Your task to perform on an android device: find photos in the google photos app Image 0: 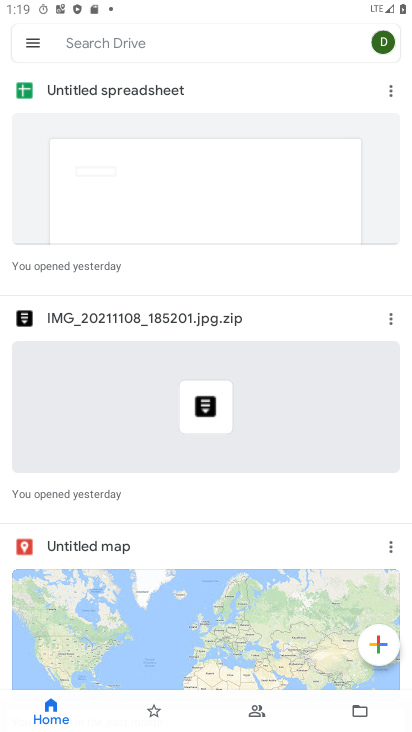
Step 0: press home button
Your task to perform on an android device: find photos in the google photos app Image 1: 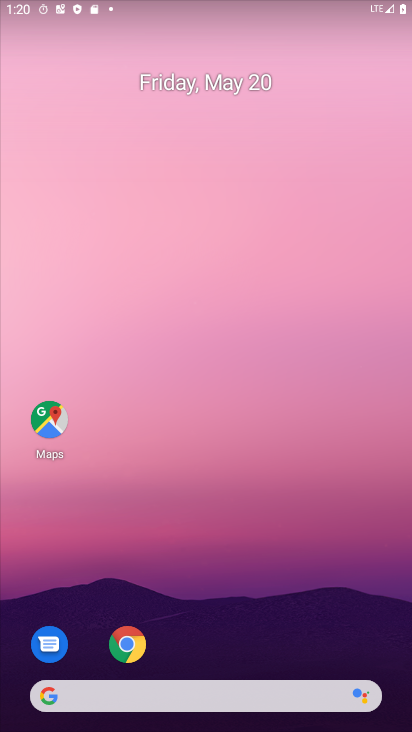
Step 1: drag from (313, 541) to (376, 101)
Your task to perform on an android device: find photos in the google photos app Image 2: 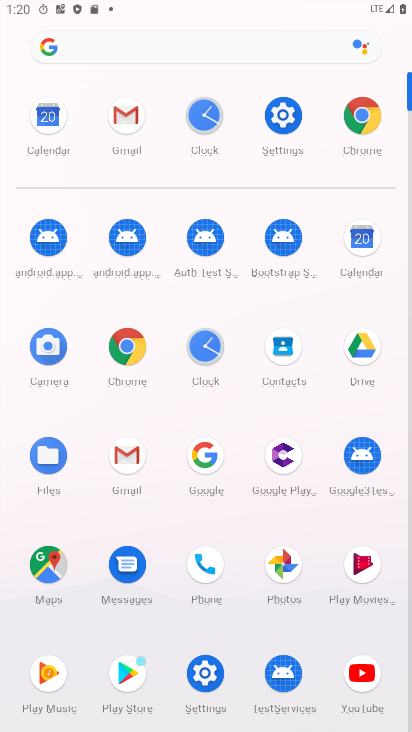
Step 2: click (267, 558)
Your task to perform on an android device: find photos in the google photos app Image 3: 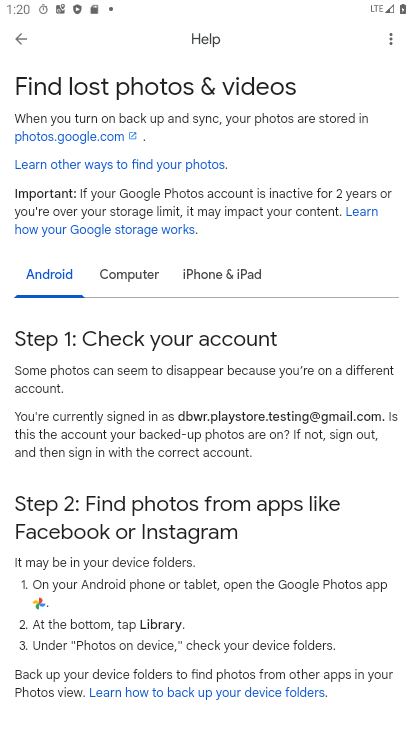
Step 3: click (18, 43)
Your task to perform on an android device: find photos in the google photos app Image 4: 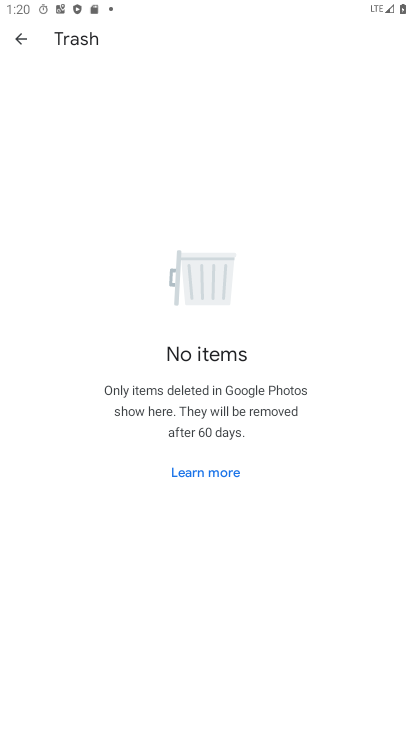
Step 4: click (10, 38)
Your task to perform on an android device: find photos in the google photos app Image 5: 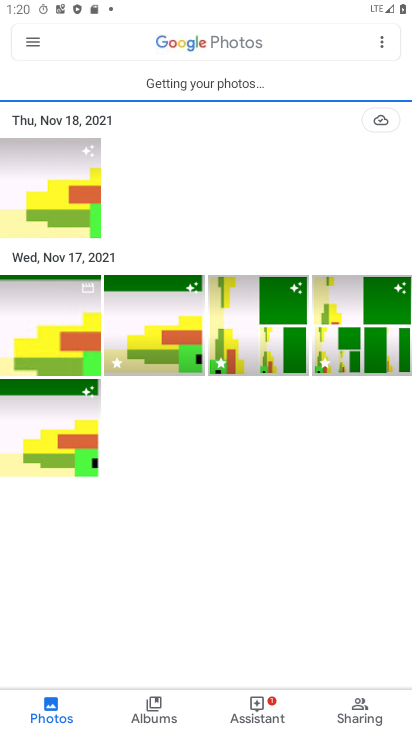
Step 5: click (63, 133)
Your task to perform on an android device: find photos in the google photos app Image 6: 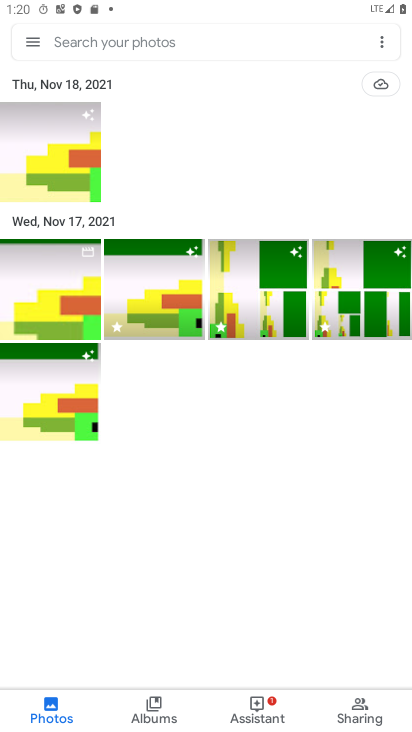
Step 6: task complete